Your task to perform on an android device: Show the shopping cart on amazon.com. Search for corsair k70 on amazon.com, select the first entry, and add it to the cart. Image 0: 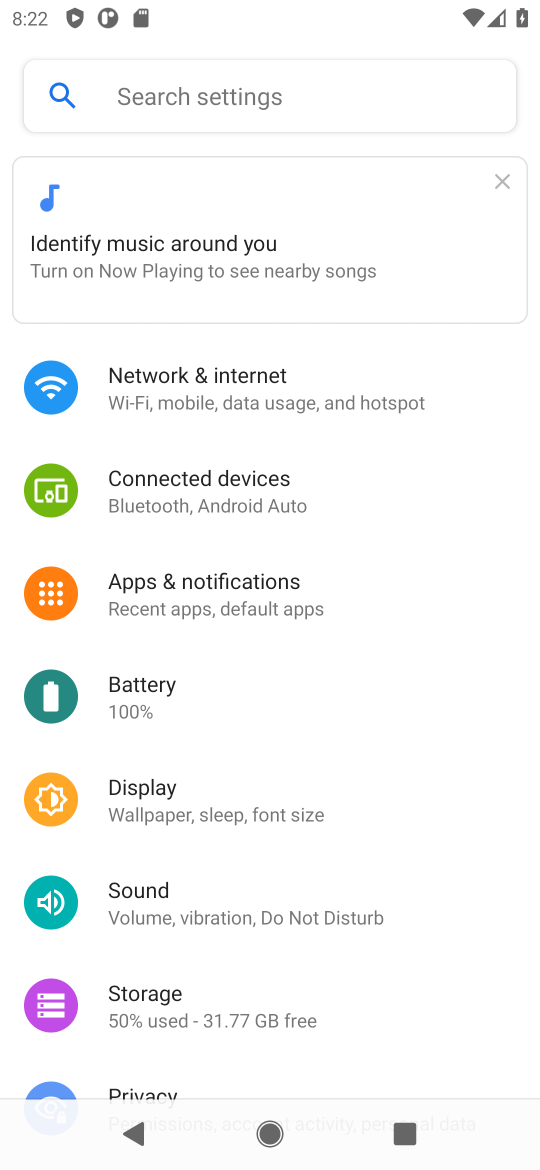
Step 0: press home button
Your task to perform on an android device: Show the shopping cart on amazon.com. Search for corsair k70 on amazon.com, select the first entry, and add it to the cart. Image 1: 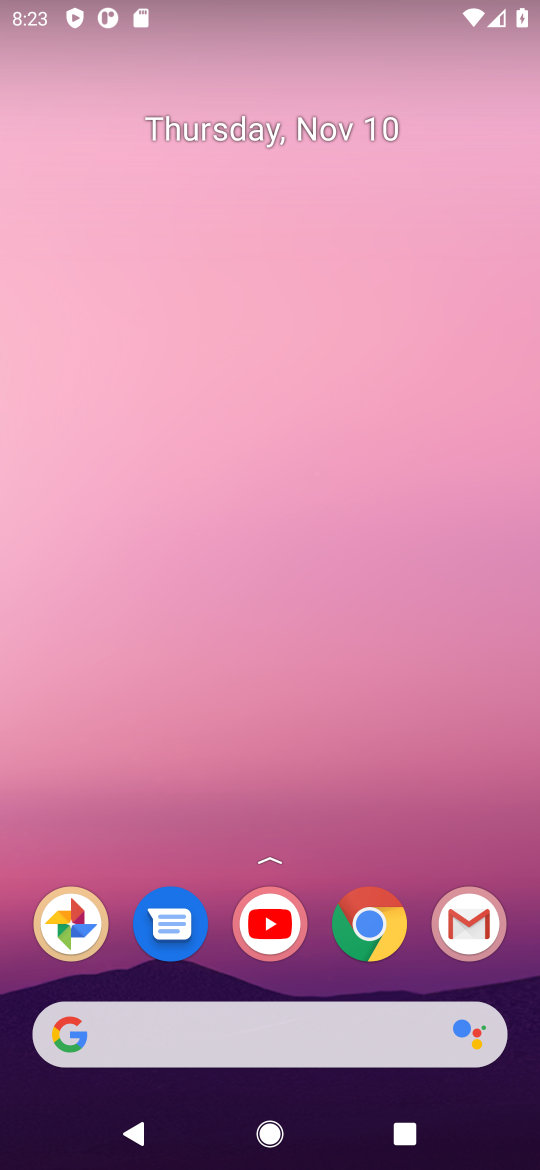
Step 1: click (360, 928)
Your task to perform on an android device: Show the shopping cart on amazon.com. Search for corsair k70 on amazon.com, select the first entry, and add it to the cart. Image 2: 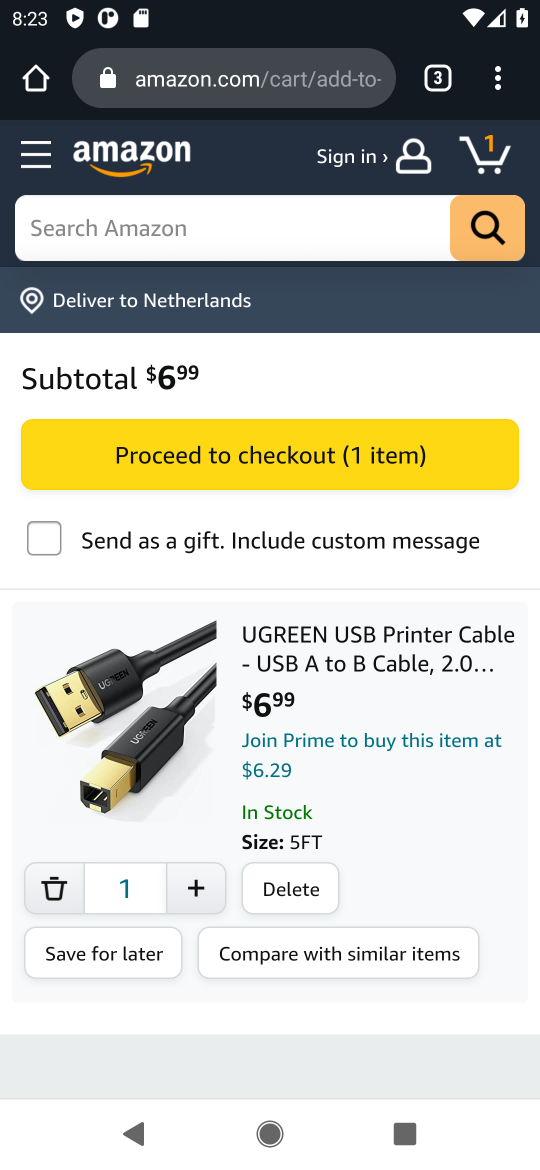
Step 2: drag from (388, 853) to (402, 710)
Your task to perform on an android device: Show the shopping cart on amazon.com. Search for corsair k70 on amazon.com, select the first entry, and add it to the cart. Image 3: 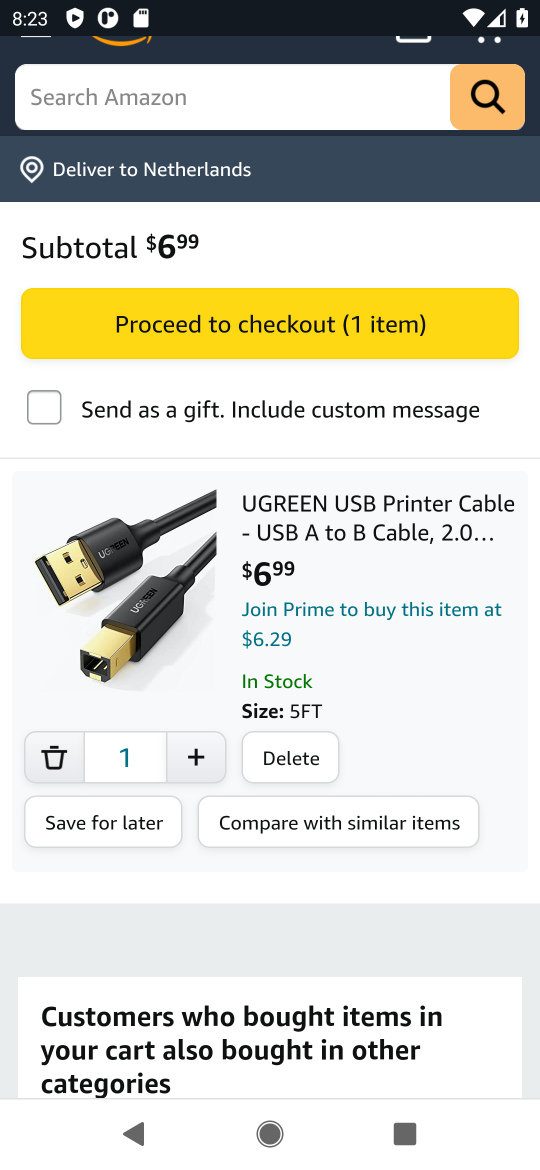
Step 3: click (245, 105)
Your task to perform on an android device: Show the shopping cart on amazon.com. Search for corsair k70 on amazon.com, select the first entry, and add it to the cart. Image 4: 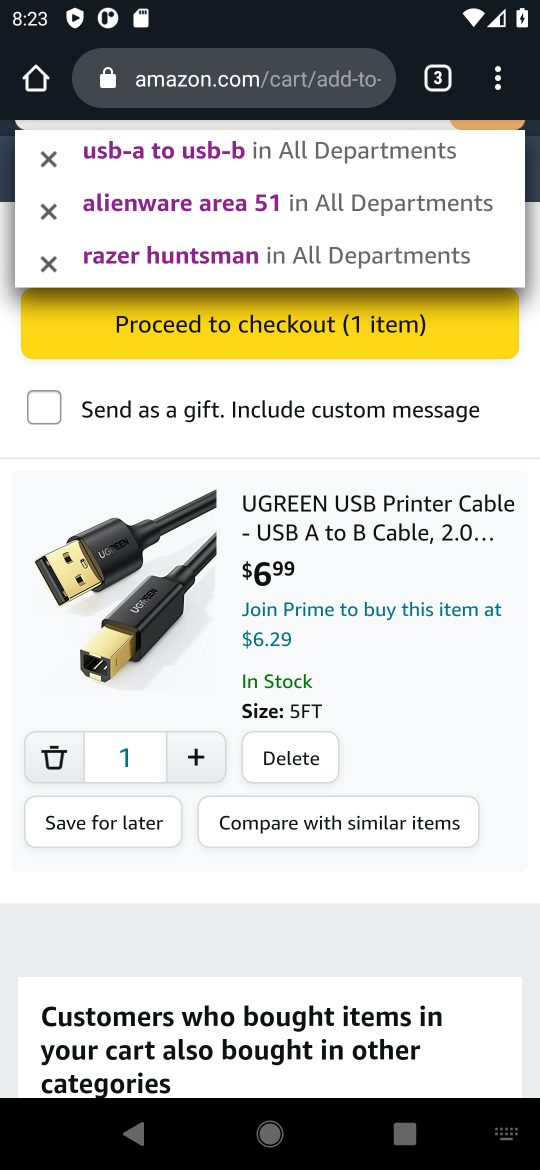
Step 4: type "corsair k70"
Your task to perform on an android device: Show the shopping cart on amazon.com. Search for corsair k70 on amazon.com, select the first entry, and add it to the cart. Image 5: 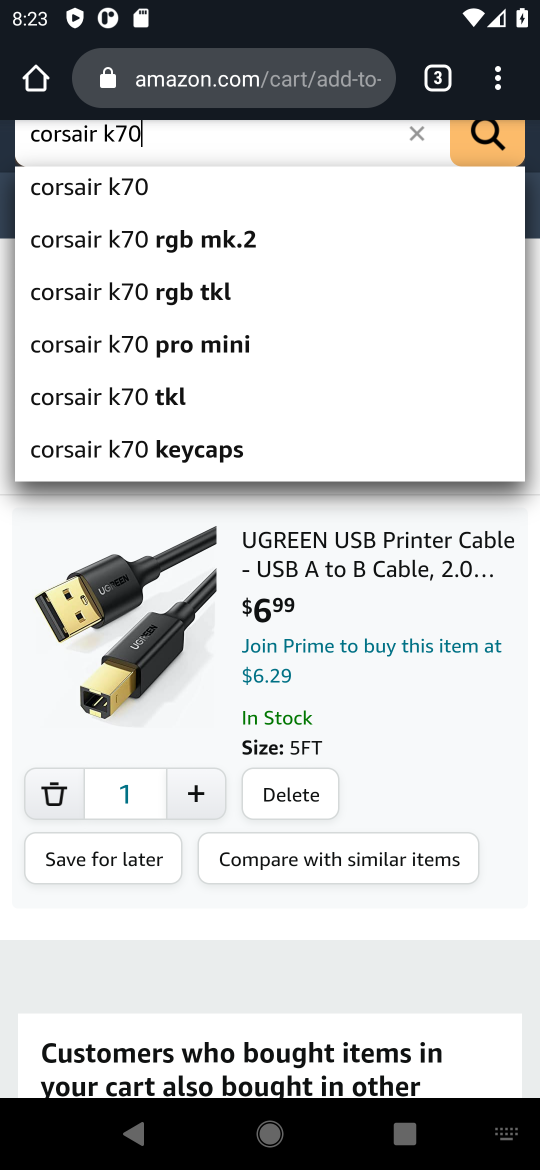
Step 5: click (106, 191)
Your task to perform on an android device: Show the shopping cart on amazon.com. Search for corsair k70 on amazon.com, select the first entry, and add it to the cart. Image 6: 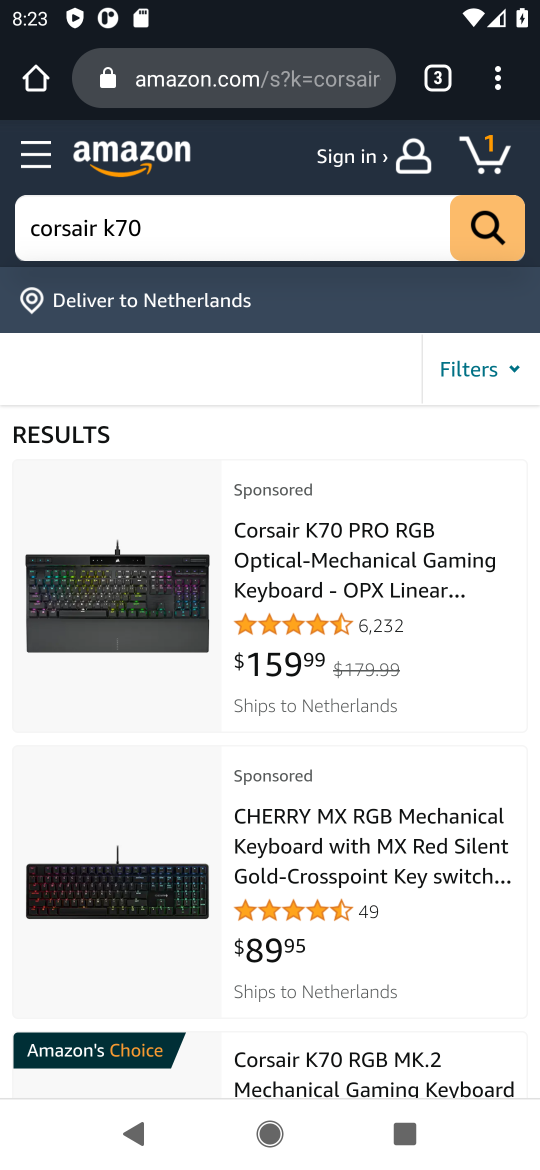
Step 6: click (115, 615)
Your task to perform on an android device: Show the shopping cart on amazon.com. Search for corsair k70 on amazon.com, select the first entry, and add it to the cart. Image 7: 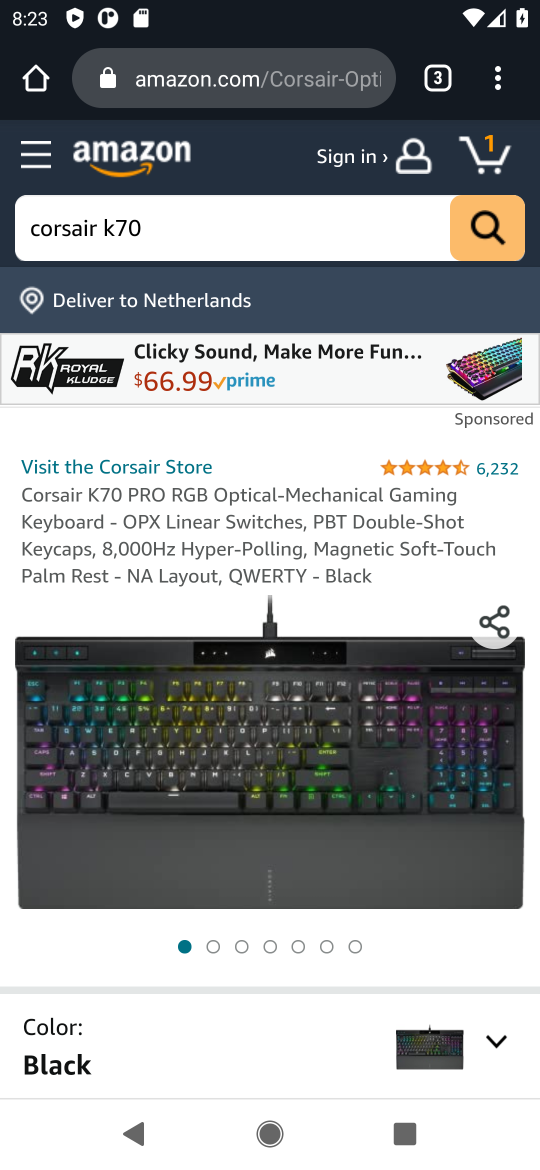
Step 7: drag from (286, 867) to (298, 430)
Your task to perform on an android device: Show the shopping cart on amazon.com. Search for corsair k70 on amazon.com, select the first entry, and add it to the cart. Image 8: 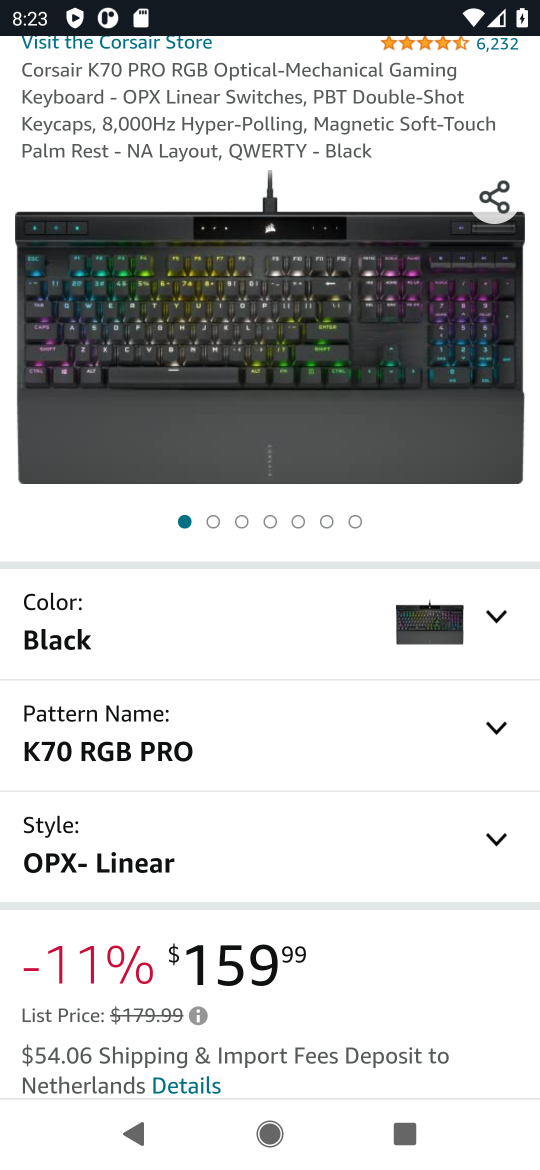
Step 8: drag from (229, 881) to (259, 471)
Your task to perform on an android device: Show the shopping cart on amazon.com. Search for corsair k70 on amazon.com, select the first entry, and add it to the cart. Image 9: 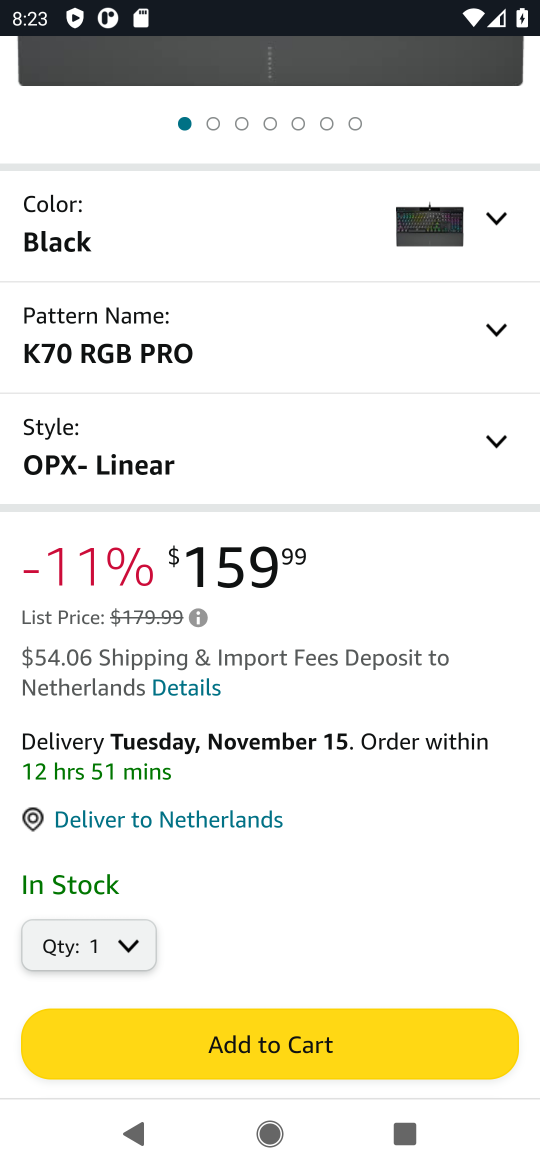
Step 9: click (265, 1026)
Your task to perform on an android device: Show the shopping cart on amazon.com. Search for corsair k70 on amazon.com, select the first entry, and add it to the cart. Image 10: 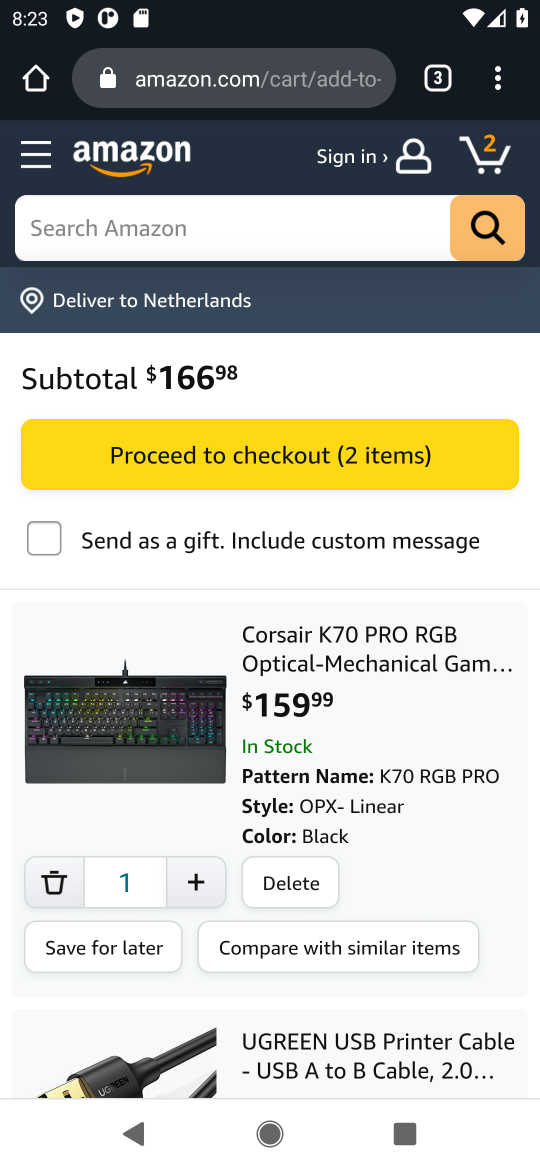
Step 10: task complete